Your task to perform on an android device: Add energizer triple a to the cart on bestbuy Image 0: 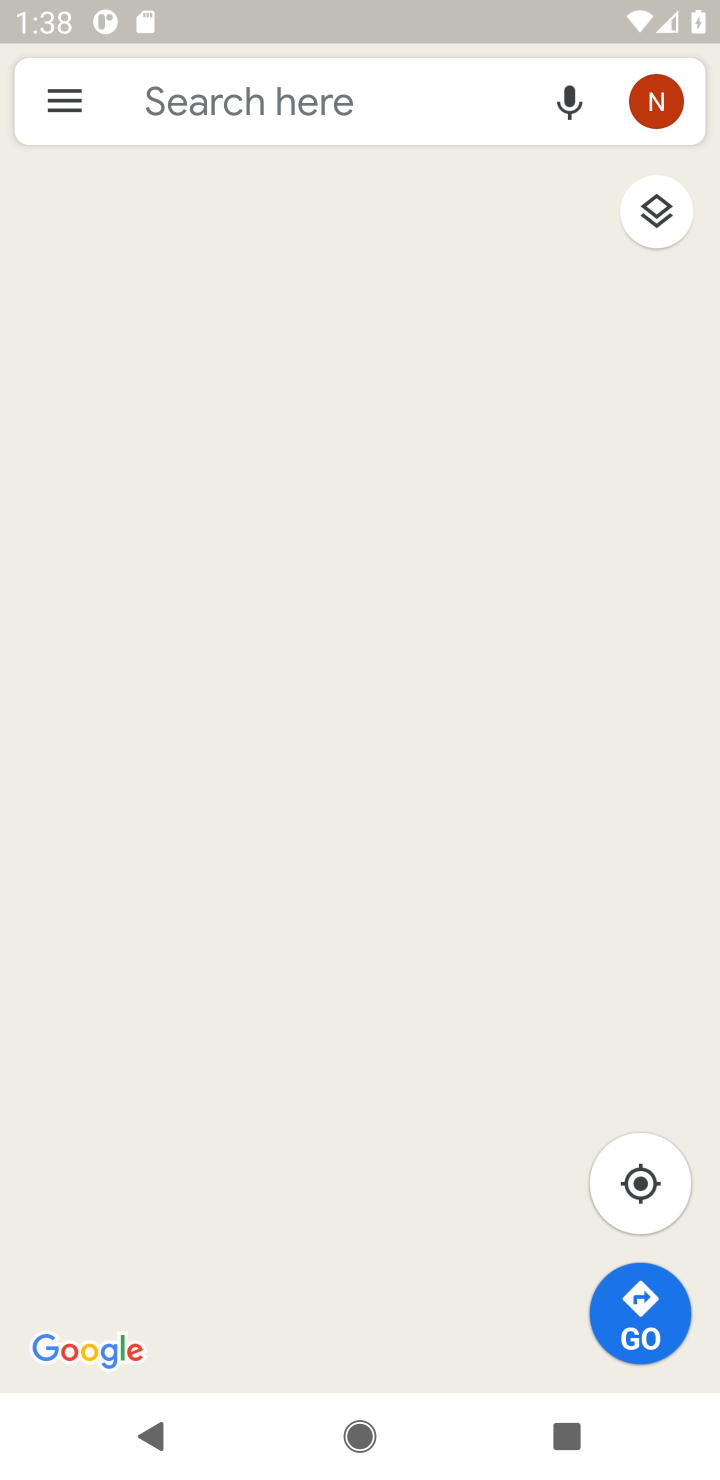
Step 0: press home button
Your task to perform on an android device: Add energizer triple a to the cart on bestbuy Image 1: 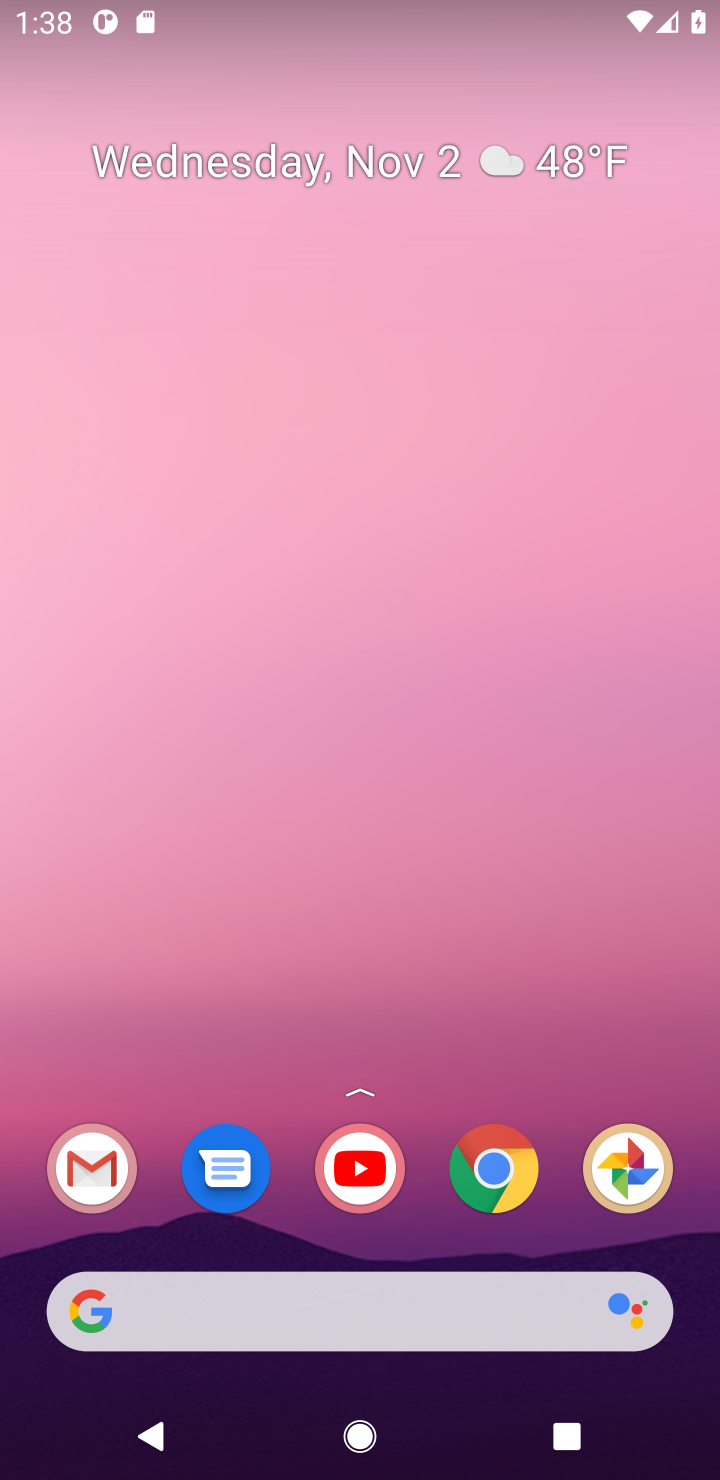
Step 1: click (345, 1305)
Your task to perform on an android device: Add energizer triple a to the cart on bestbuy Image 2: 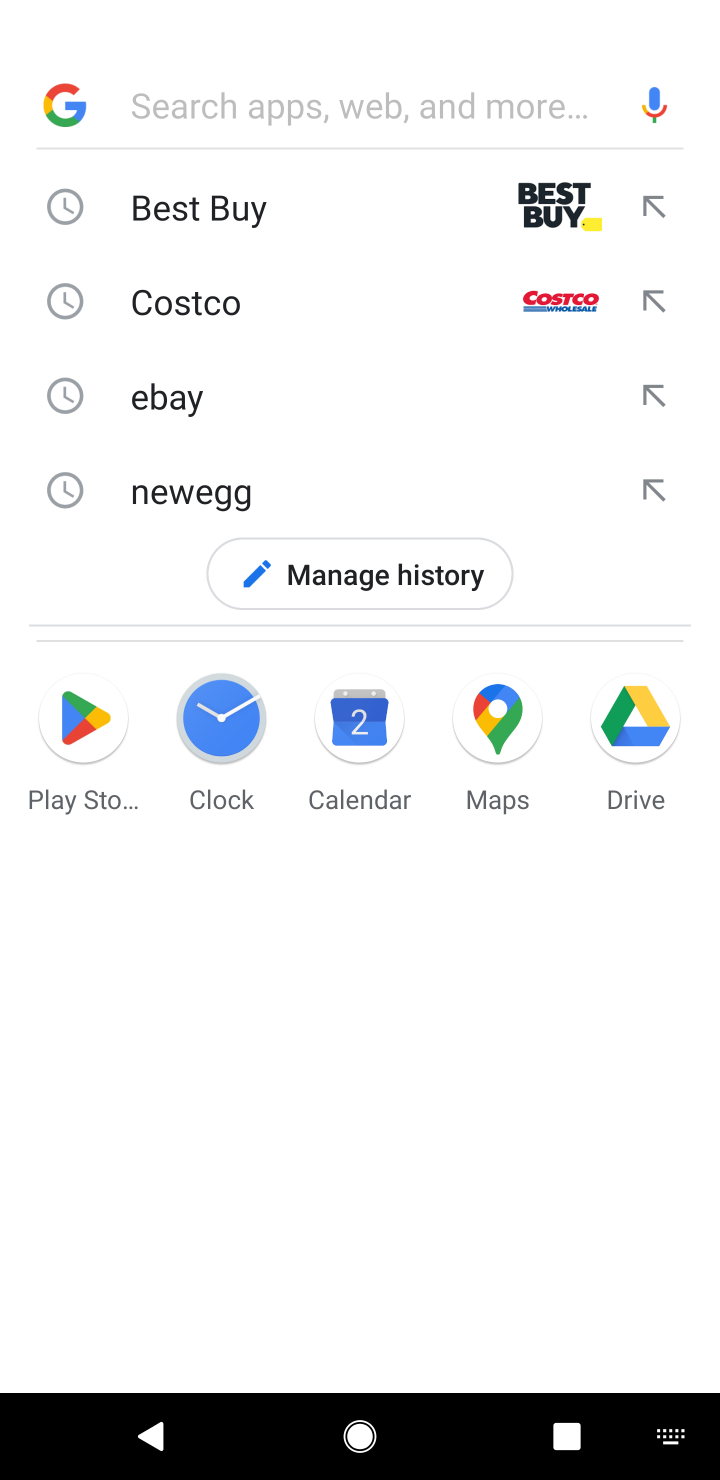
Step 2: type "bestbuy"
Your task to perform on an android device: Add energizer triple a to the cart on bestbuy Image 3: 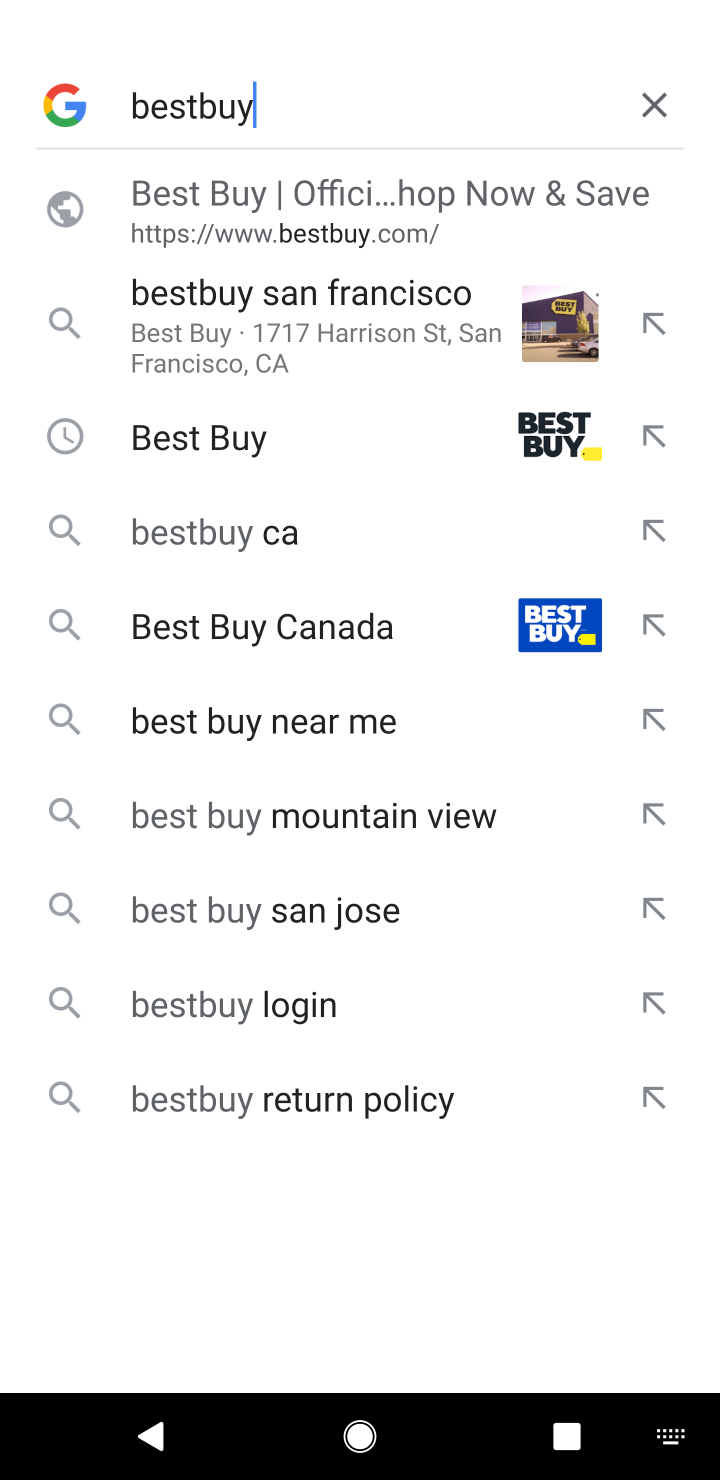
Step 3: click (262, 435)
Your task to perform on an android device: Add energizer triple a to the cart on bestbuy Image 4: 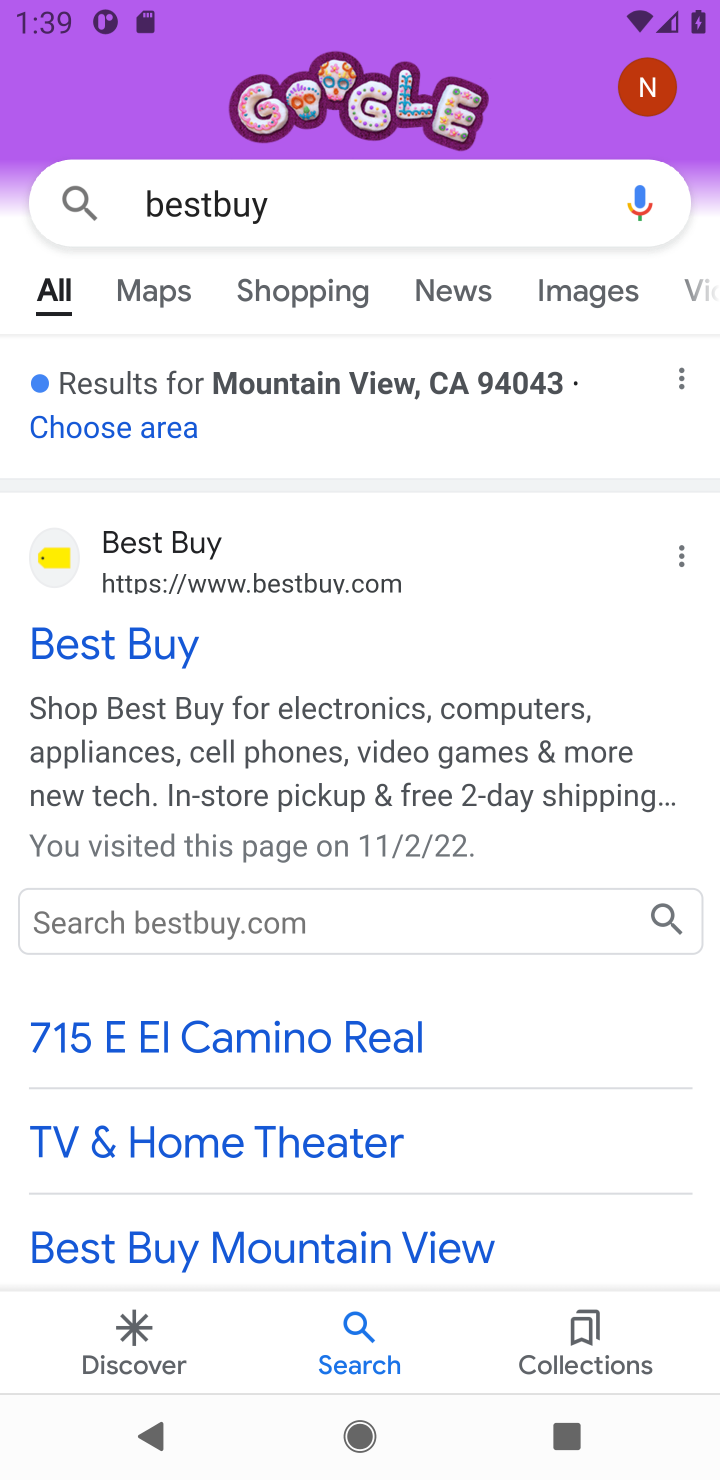
Step 4: click (164, 529)
Your task to perform on an android device: Add energizer triple a to the cart on bestbuy Image 5: 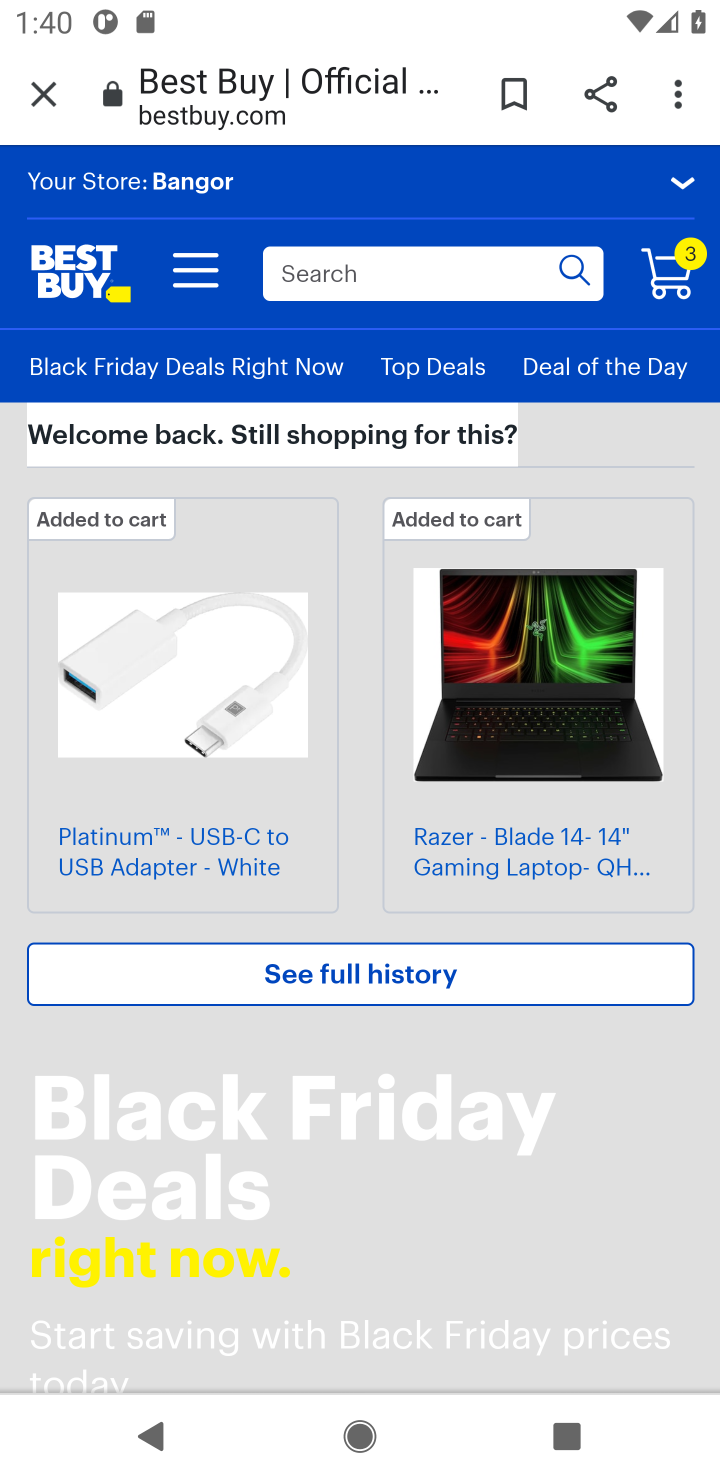
Step 5: click (395, 272)
Your task to perform on an android device: Add energizer triple a to the cart on bestbuy Image 6: 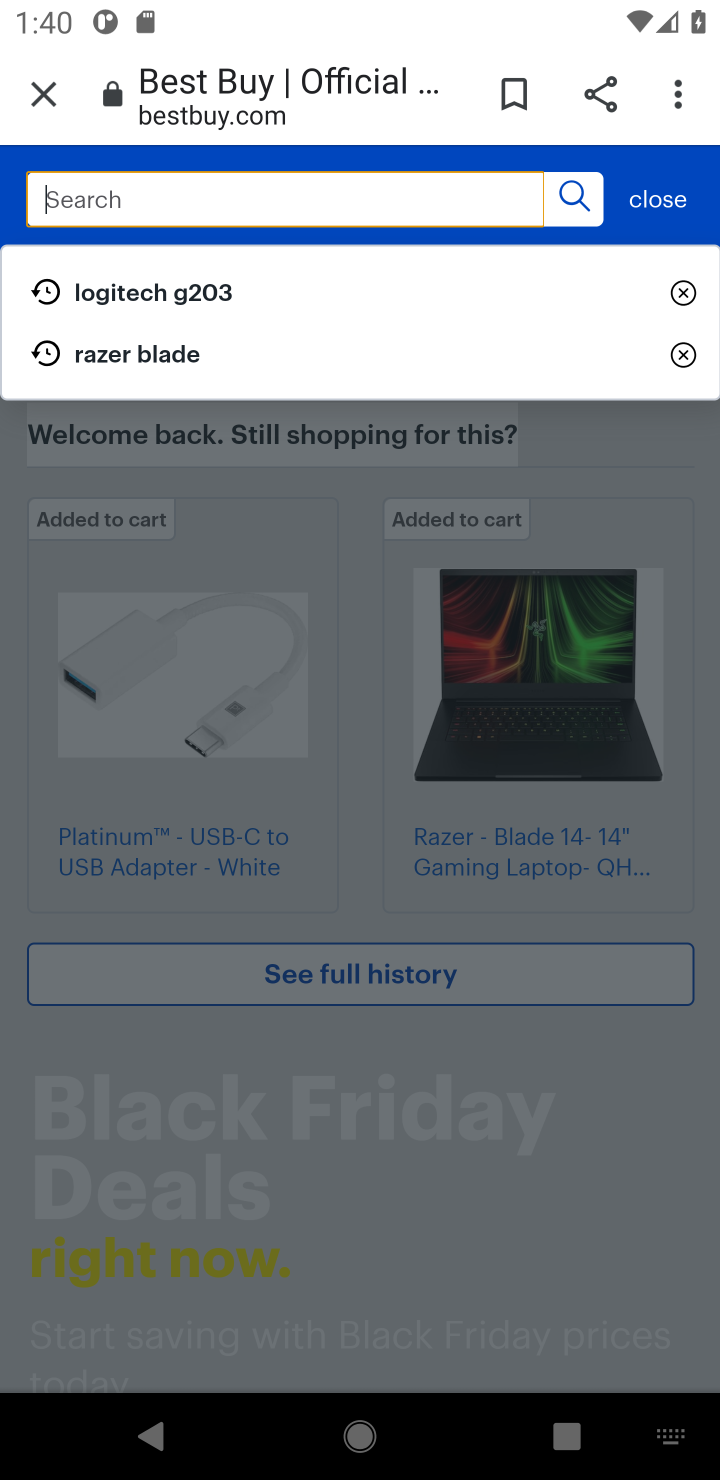
Step 6: type "energizer triple "
Your task to perform on an android device: Add energizer triple a to the cart on bestbuy Image 7: 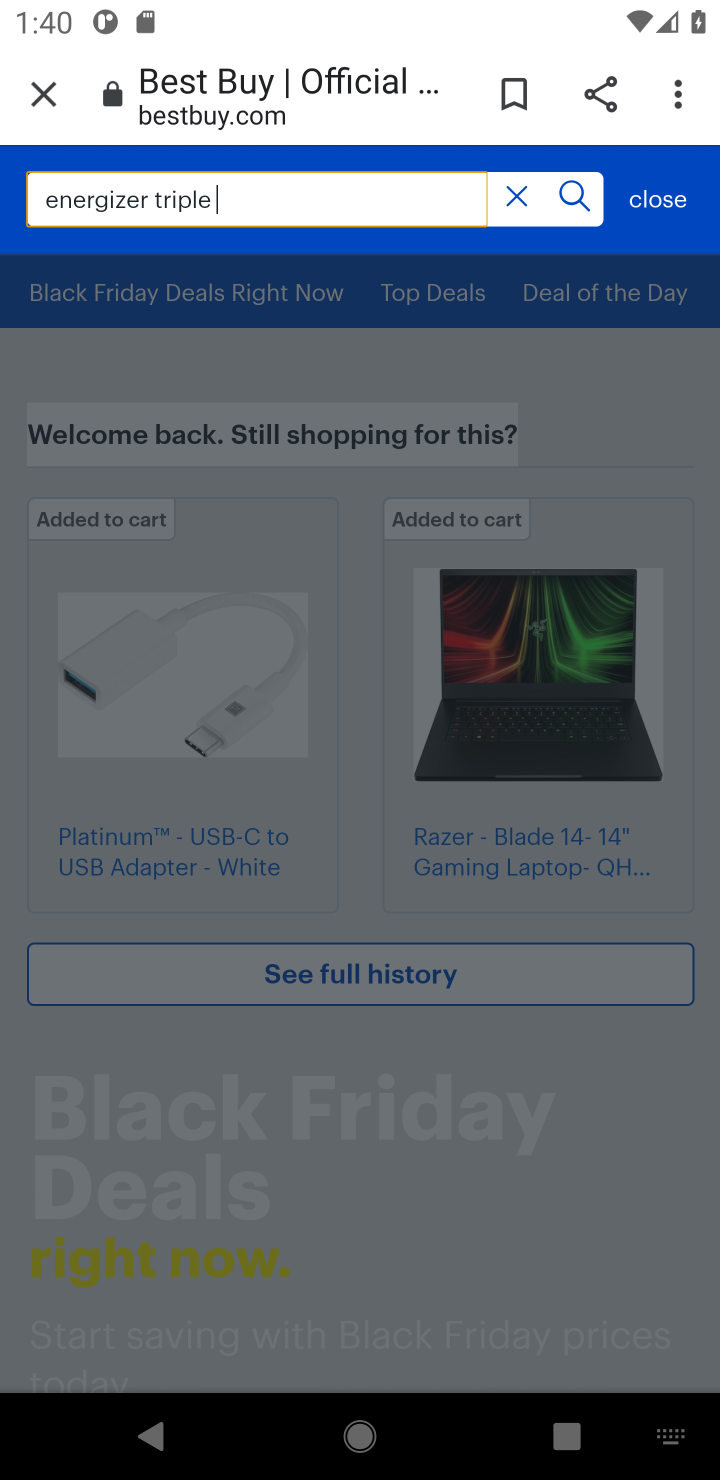
Step 7: click (569, 216)
Your task to perform on an android device: Add energizer triple a to the cart on bestbuy Image 8: 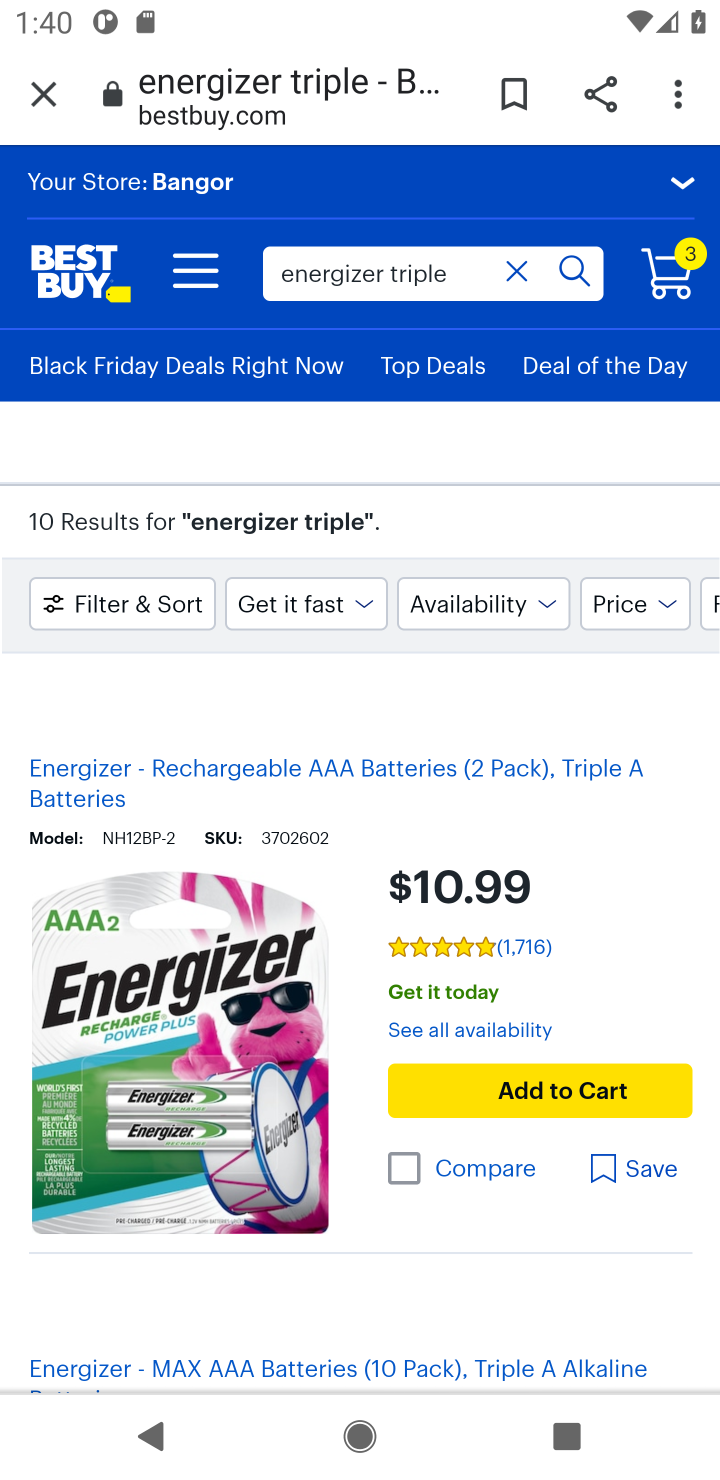
Step 8: click (496, 1108)
Your task to perform on an android device: Add energizer triple a to the cart on bestbuy Image 9: 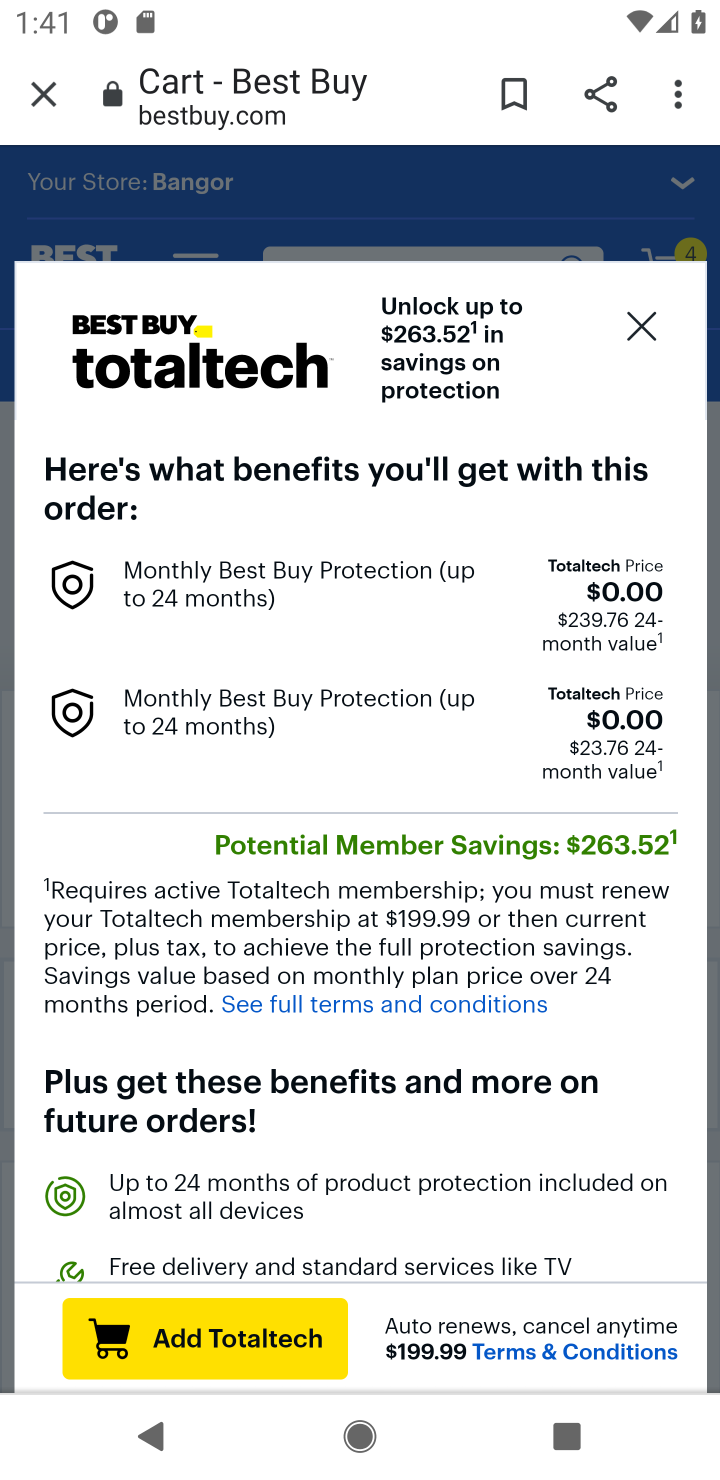
Step 9: click (633, 309)
Your task to perform on an android device: Add energizer triple a to the cart on bestbuy Image 10: 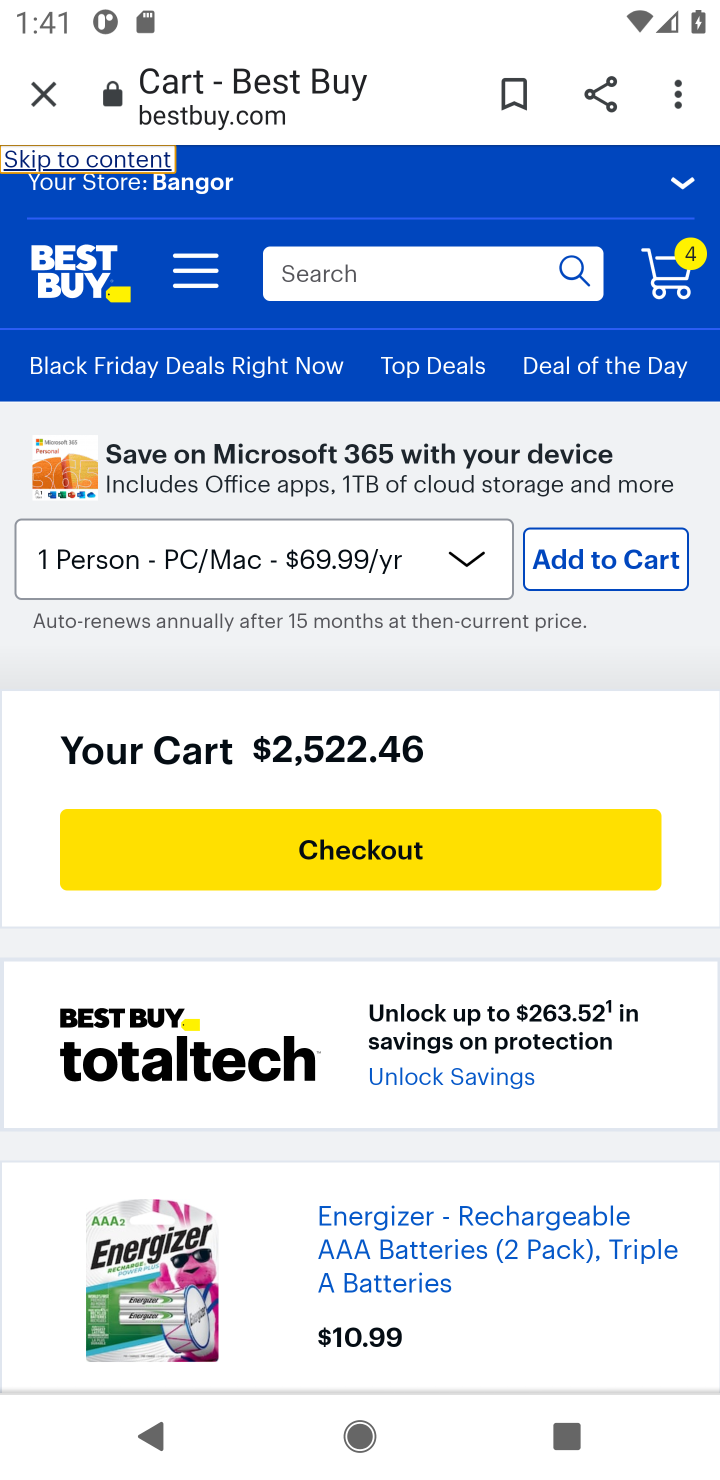
Step 10: task complete